Your task to perform on an android device: Open Reddit.com Image 0: 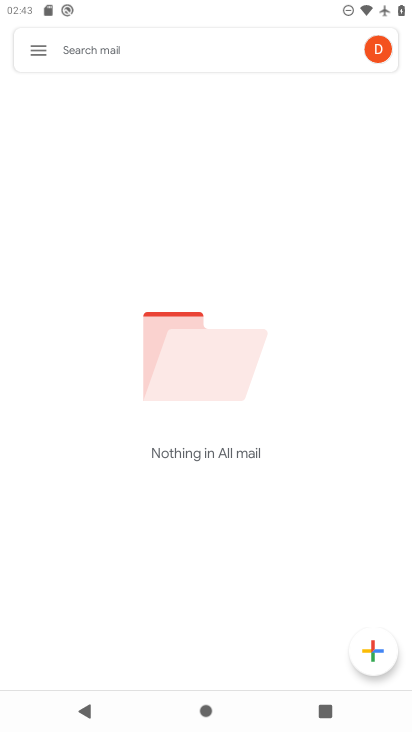
Step 0: press home button
Your task to perform on an android device: Open Reddit.com Image 1: 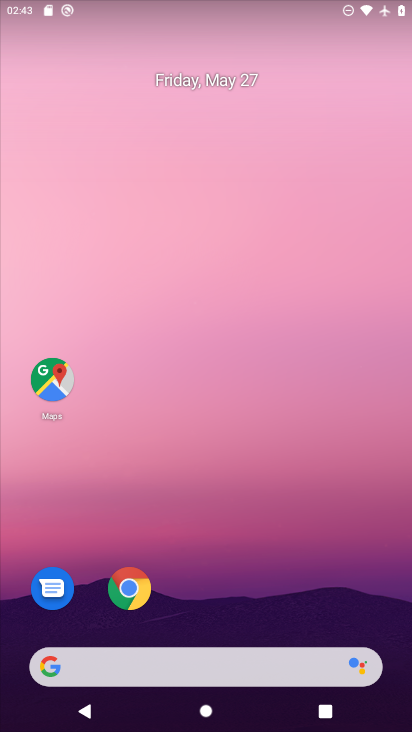
Step 1: click (125, 587)
Your task to perform on an android device: Open Reddit.com Image 2: 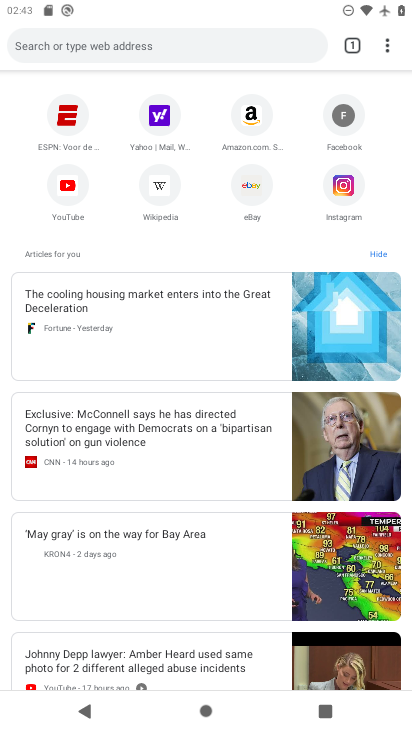
Step 2: click (111, 44)
Your task to perform on an android device: Open Reddit.com Image 3: 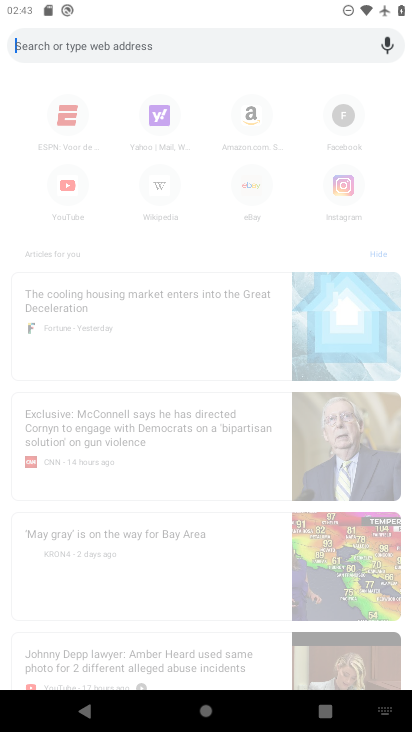
Step 3: type "reddit.com"
Your task to perform on an android device: Open Reddit.com Image 4: 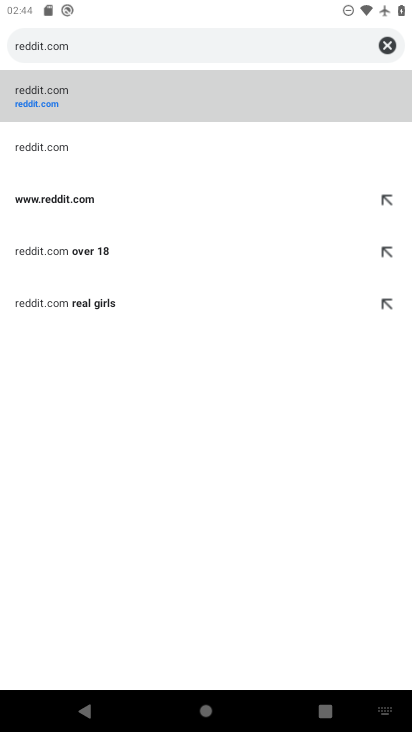
Step 4: click (49, 102)
Your task to perform on an android device: Open Reddit.com Image 5: 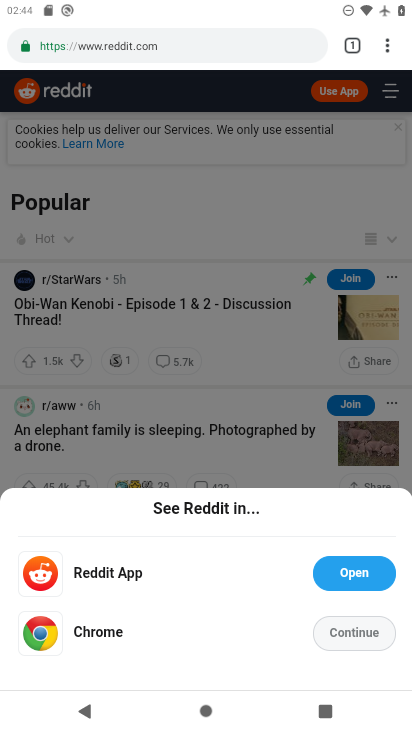
Step 5: task complete